Your task to perform on an android device: toggle notification dots Image 0: 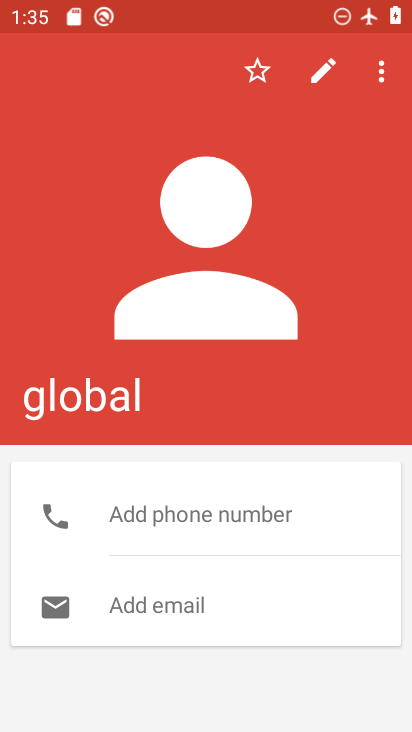
Step 0: press home button
Your task to perform on an android device: toggle notification dots Image 1: 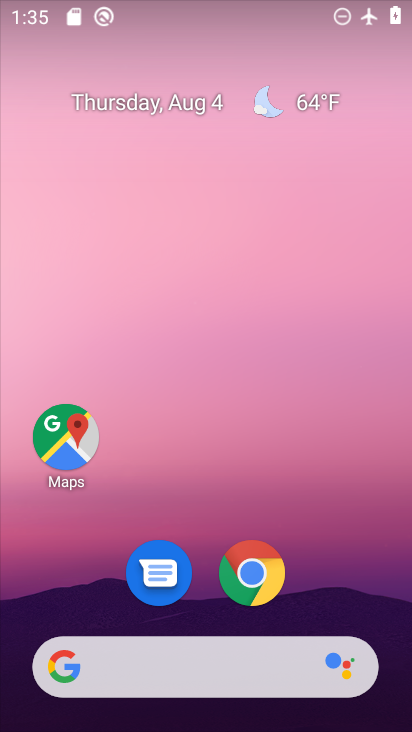
Step 1: drag from (348, 532) to (184, 1)
Your task to perform on an android device: toggle notification dots Image 2: 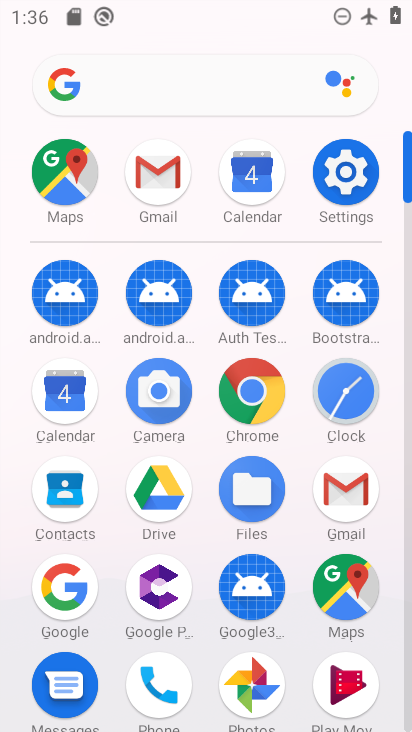
Step 2: click (360, 180)
Your task to perform on an android device: toggle notification dots Image 3: 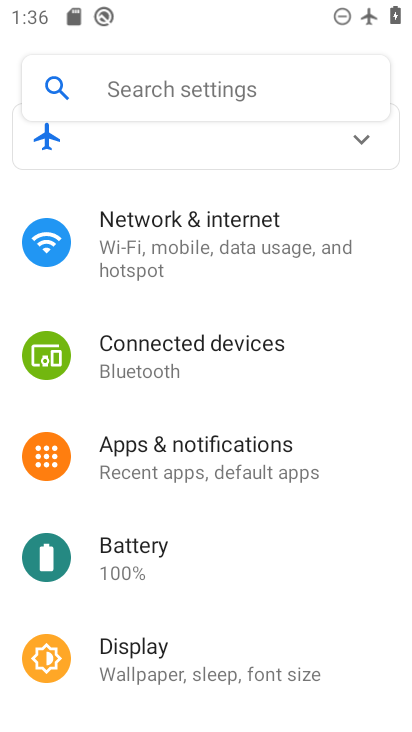
Step 3: click (159, 449)
Your task to perform on an android device: toggle notification dots Image 4: 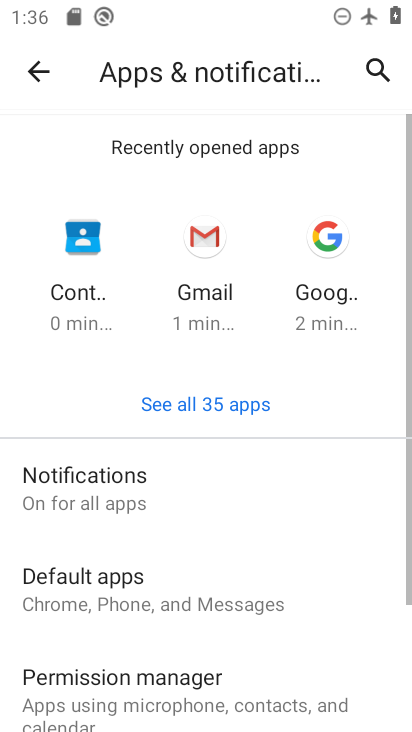
Step 4: click (121, 491)
Your task to perform on an android device: toggle notification dots Image 5: 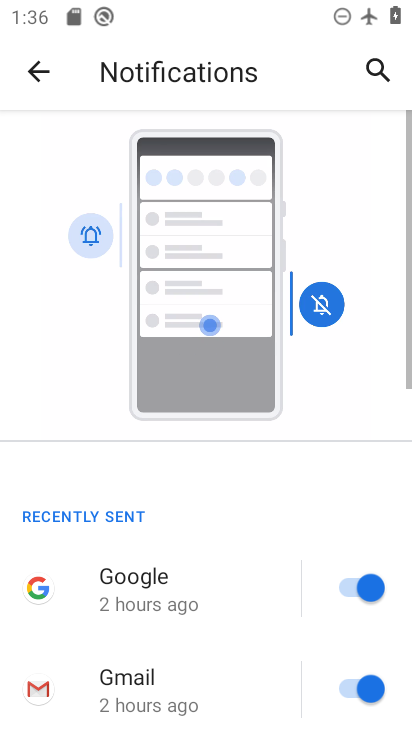
Step 5: drag from (247, 505) to (273, 70)
Your task to perform on an android device: toggle notification dots Image 6: 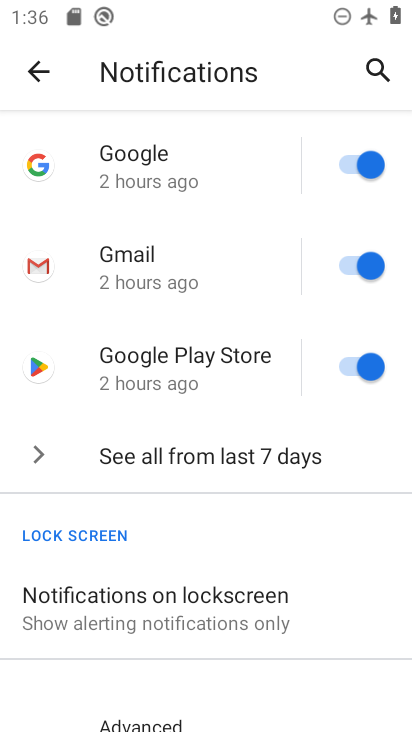
Step 6: drag from (347, 613) to (322, 169)
Your task to perform on an android device: toggle notification dots Image 7: 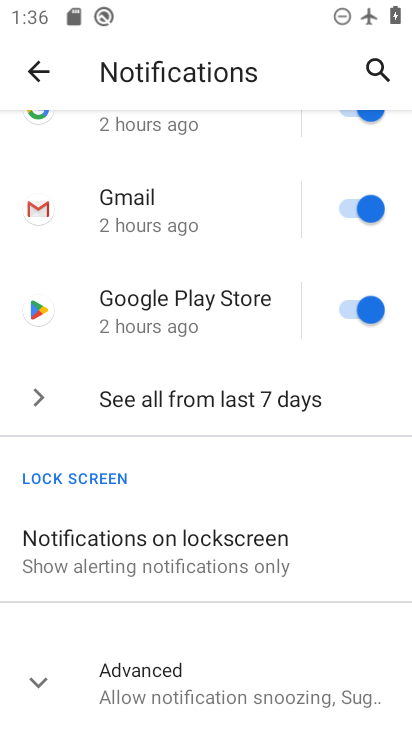
Step 7: click (219, 688)
Your task to perform on an android device: toggle notification dots Image 8: 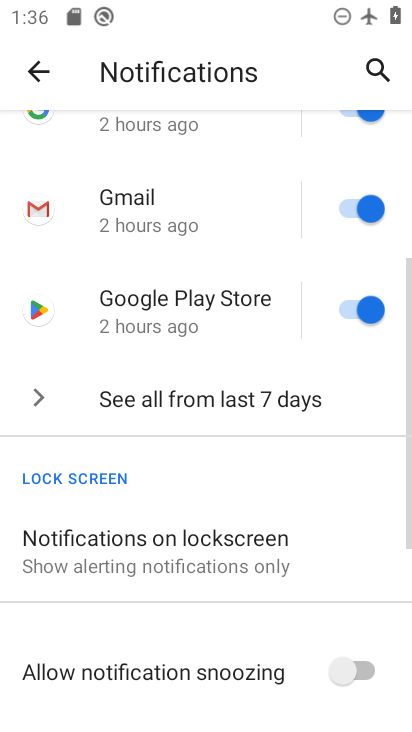
Step 8: drag from (354, 589) to (385, 213)
Your task to perform on an android device: toggle notification dots Image 9: 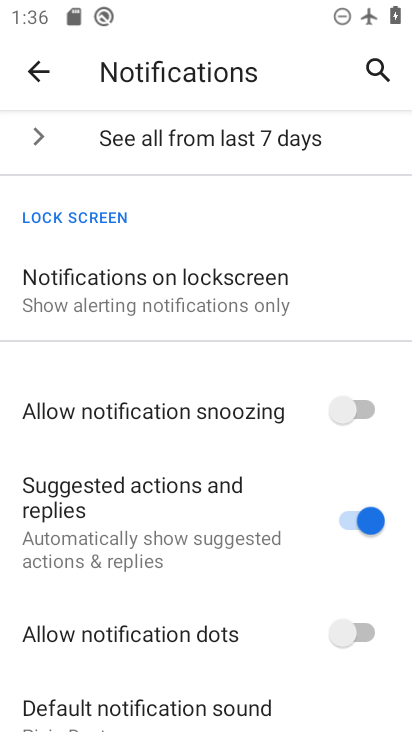
Step 9: click (371, 632)
Your task to perform on an android device: toggle notification dots Image 10: 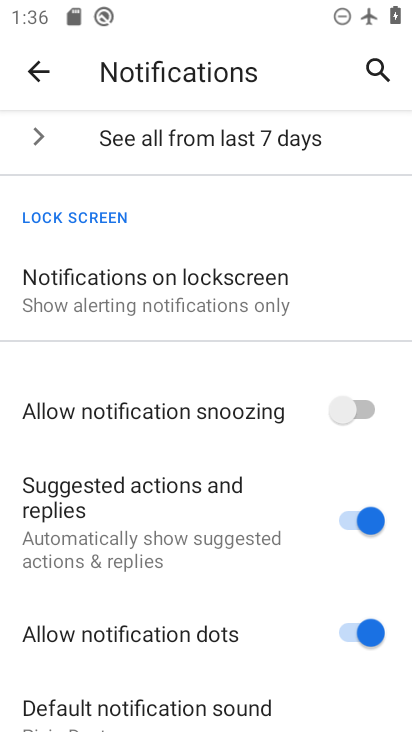
Step 10: task complete